Your task to perform on an android device: Open CNN.com Image 0: 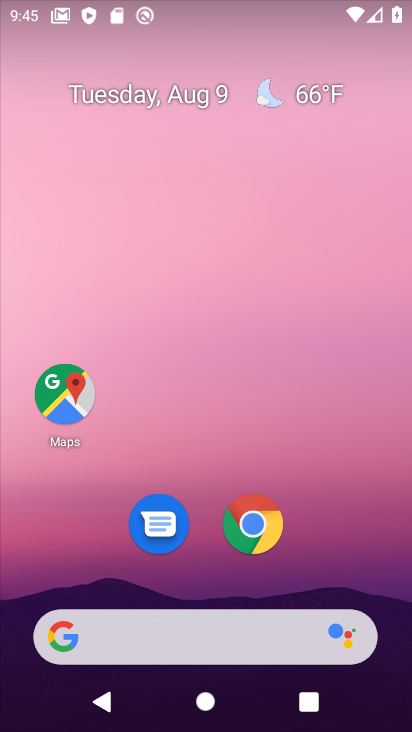
Step 0: click (237, 635)
Your task to perform on an android device: Open CNN.com Image 1: 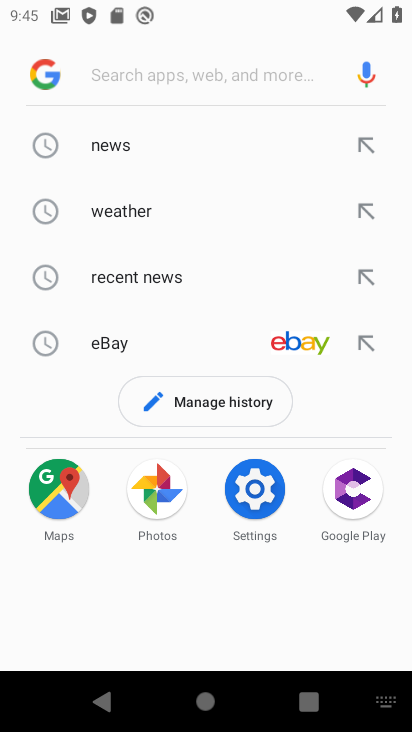
Step 1: type "cnn"
Your task to perform on an android device: Open CNN.com Image 2: 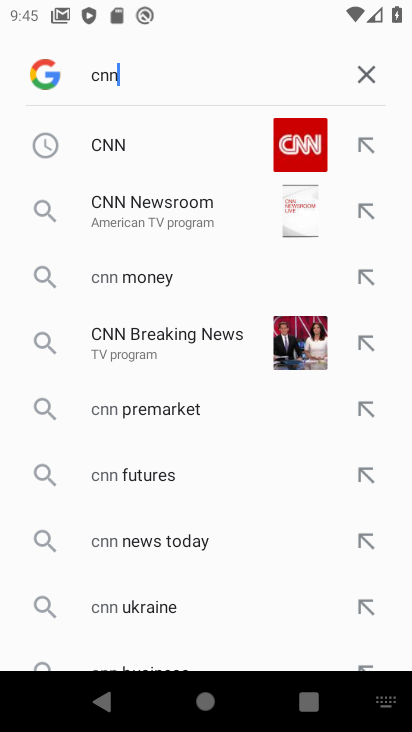
Step 2: click (219, 133)
Your task to perform on an android device: Open CNN.com Image 3: 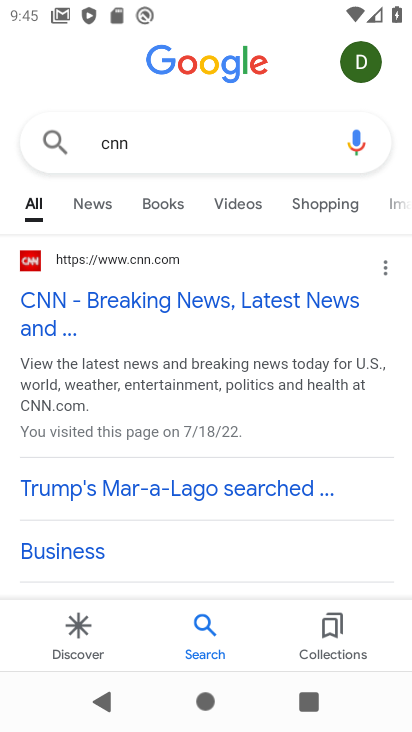
Step 3: click (180, 308)
Your task to perform on an android device: Open CNN.com Image 4: 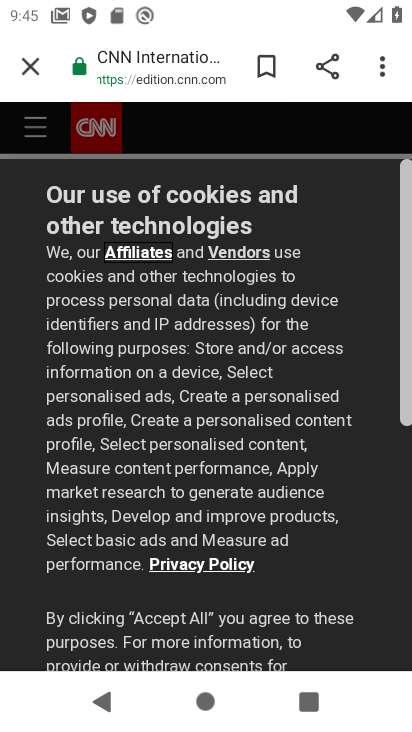
Step 4: task complete